Your task to perform on an android device: Do I have any events tomorrow? Image 0: 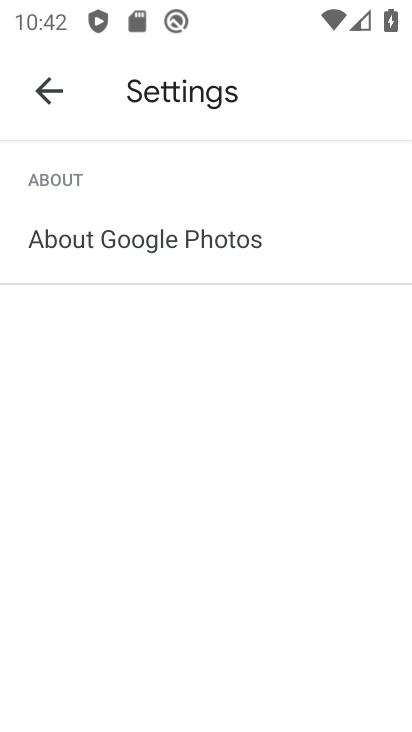
Step 0: press home button
Your task to perform on an android device: Do I have any events tomorrow? Image 1: 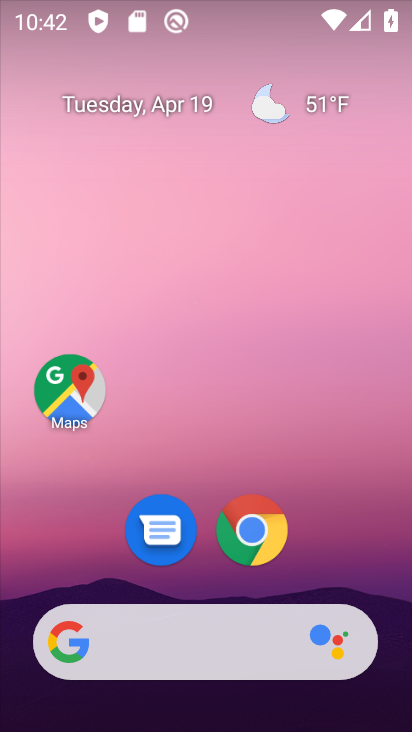
Step 1: drag from (348, 515) to (332, 101)
Your task to perform on an android device: Do I have any events tomorrow? Image 2: 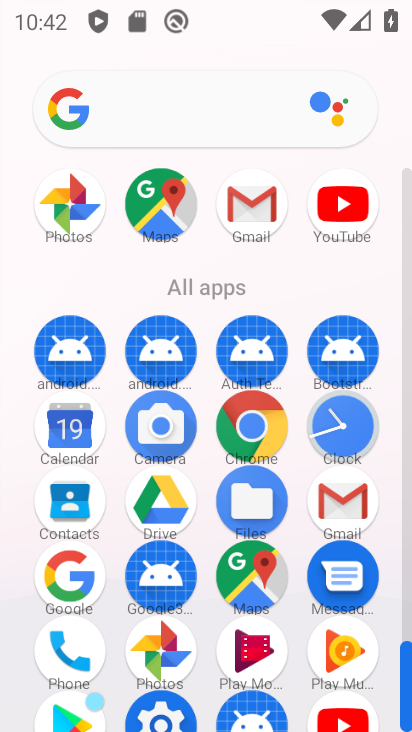
Step 2: click (70, 438)
Your task to perform on an android device: Do I have any events tomorrow? Image 3: 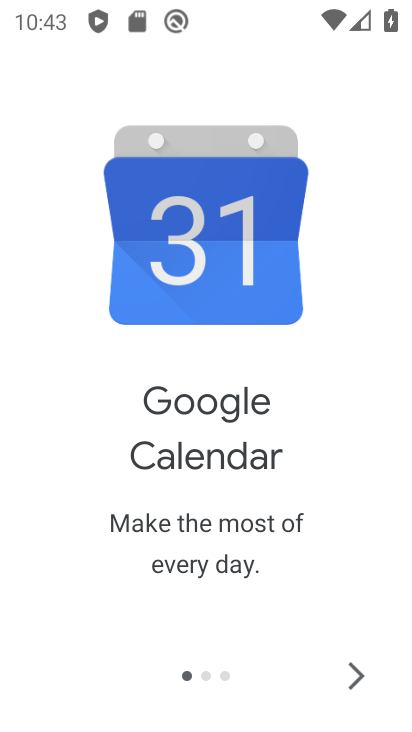
Step 3: click (354, 673)
Your task to perform on an android device: Do I have any events tomorrow? Image 4: 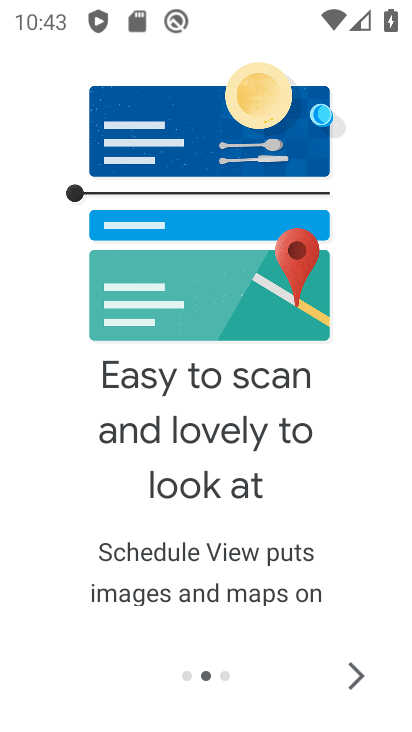
Step 4: click (354, 673)
Your task to perform on an android device: Do I have any events tomorrow? Image 5: 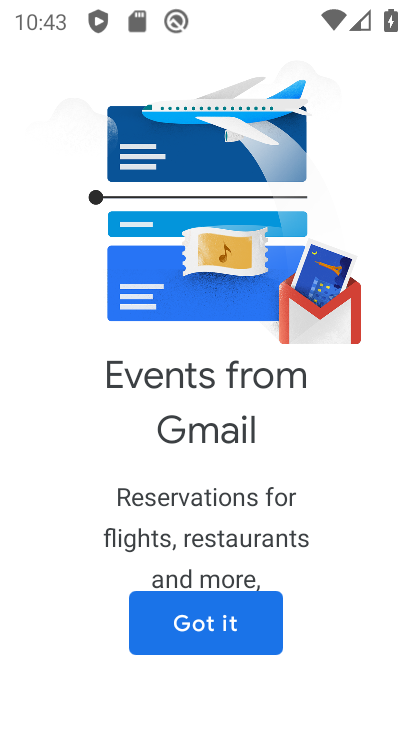
Step 5: click (256, 631)
Your task to perform on an android device: Do I have any events tomorrow? Image 6: 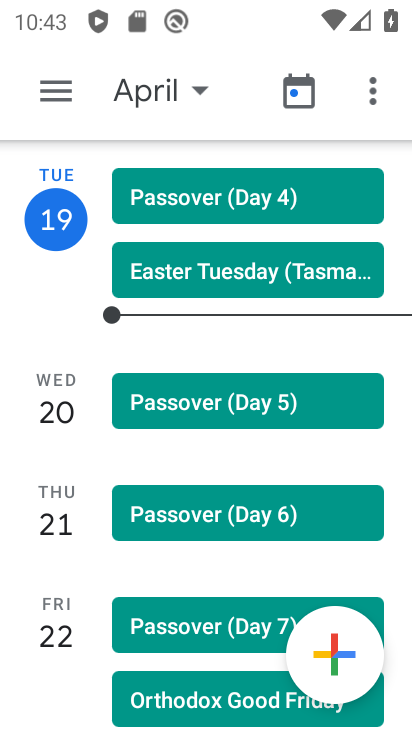
Step 6: click (264, 399)
Your task to perform on an android device: Do I have any events tomorrow? Image 7: 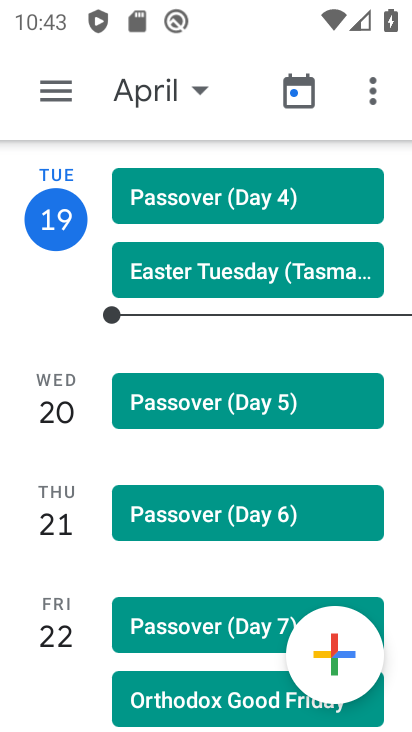
Step 7: task complete